Your task to perform on an android device: manage bookmarks in the chrome app Image 0: 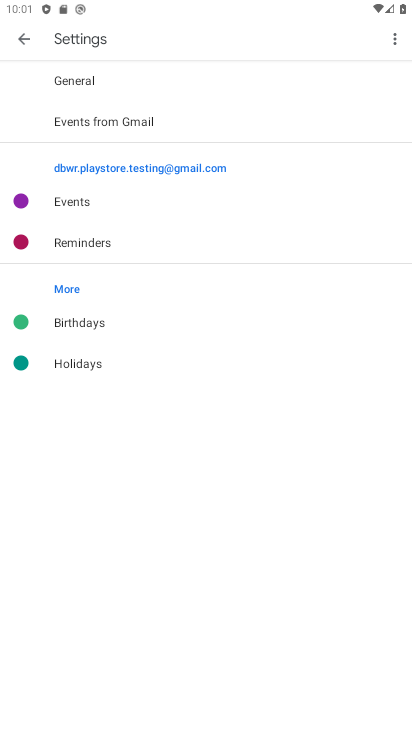
Step 0: press home button
Your task to perform on an android device: manage bookmarks in the chrome app Image 1: 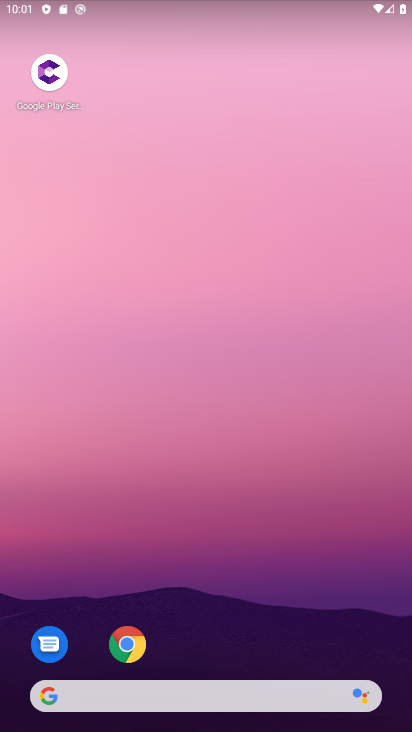
Step 1: click (131, 665)
Your task to perform on an android device: manage bookmarks in the chrome app Image 2: 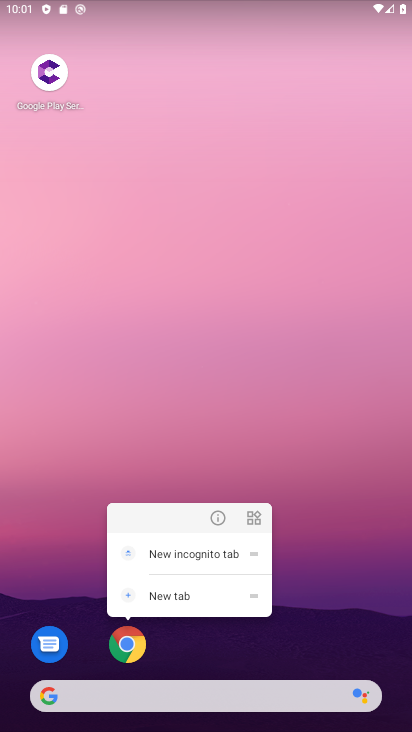
Step 2: click (135, 658)
Your task to perform on an android device: manage bookmarks in the chrome app Image 3: 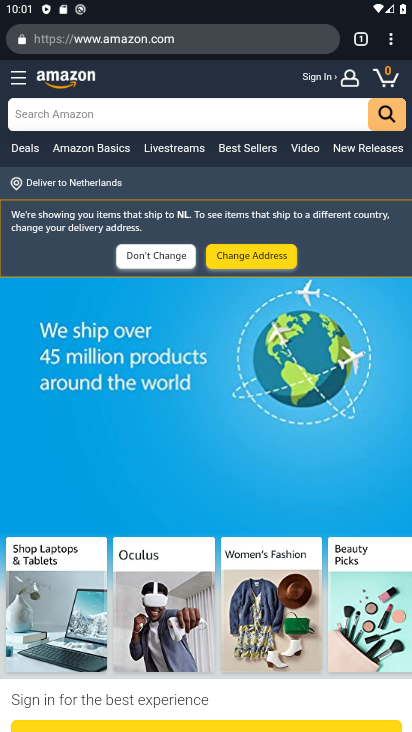
Step 3: task complete